Your task to perform on an android device: Open the calendar app, open the side menu, and click the "Day" option Image 0: 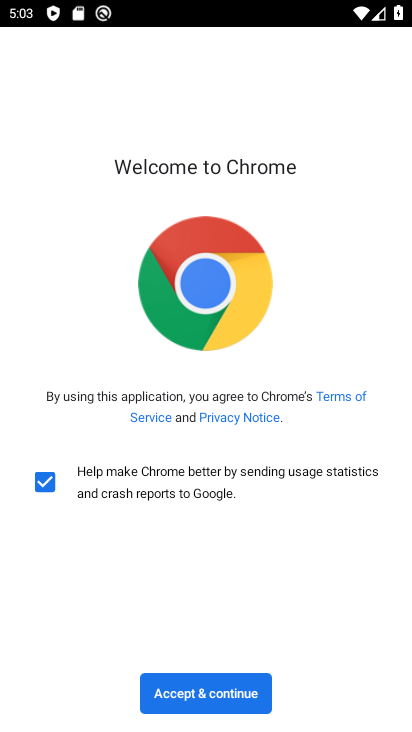
Step 0: press back button
Your task to perform on an android device: Open the calendar app, open the side menu, and click the "Day" option Image 1: 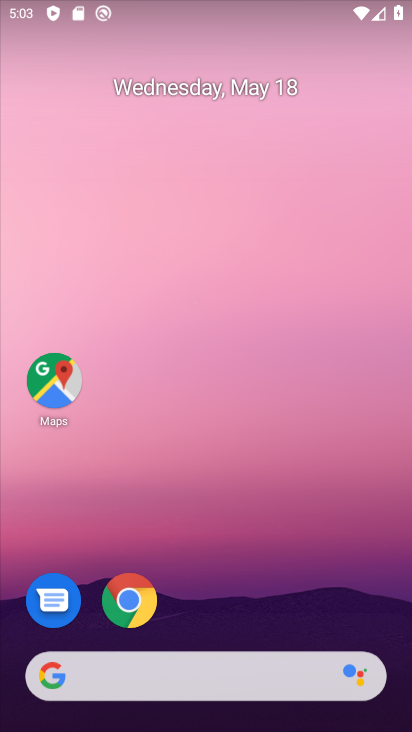
Step 1: drag from (223, 567) to (179, 113)
Your task to perform on an android device: Open the calendar app, open the side menu, and click the "Day" option Image 2: 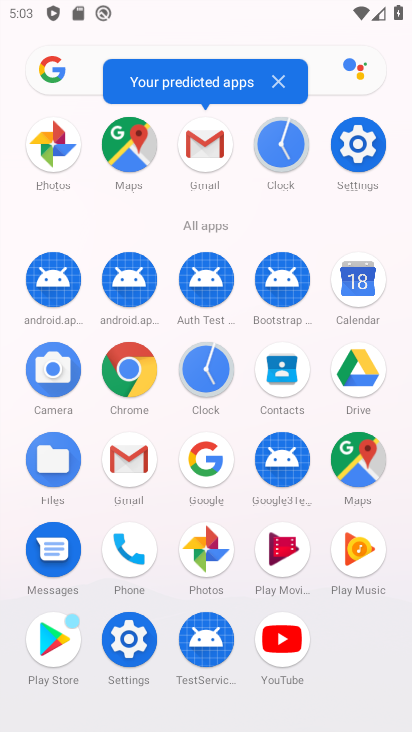
Step 2: click (356, 279)
Your task to perform on an android device: Open the calendar app, open the side menu, and click the "Day" option Image 3: 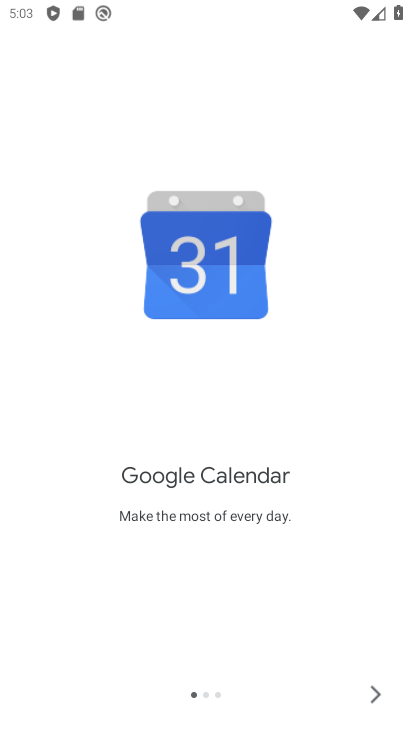
Step 3: click (374, 691)
Your task to perform on an android device: Open the calendar app, open the side menu, and click the "Day" option Image 4: 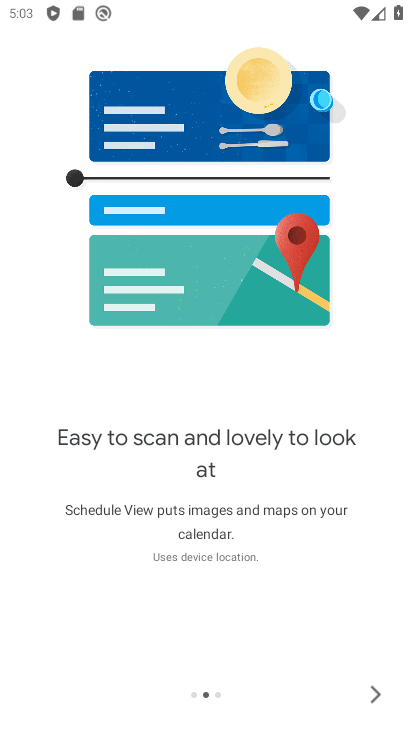
Step 4: click (374, 691)
Your task to perform on an android device: Open the calendar app, open the side menu, and click the "Day" option Image 5: 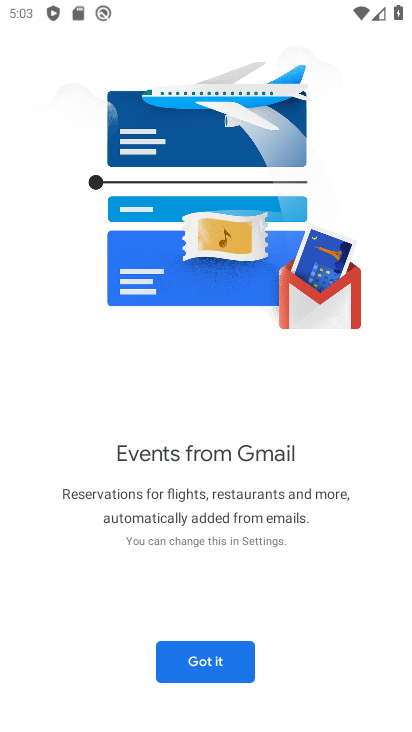
Step 5: click (188, 677)
Your task to perform on an android device: Open the calendar app, open the side menu, and click the "Day" option Image 6: 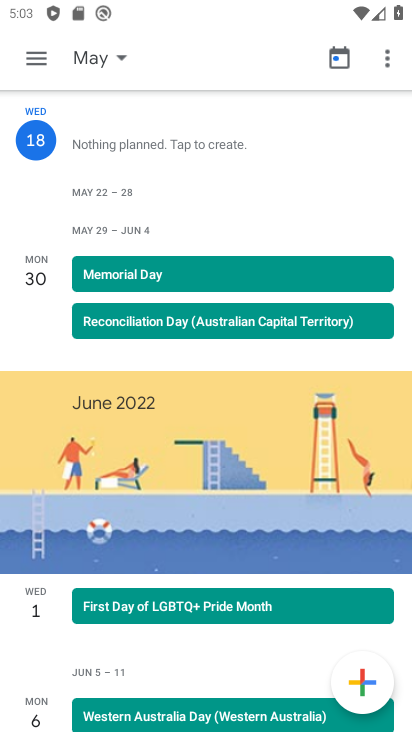
Step 6: click (36, 52)
Your task to perform on an android device: Open the calendar app, open the side menu, and click the "Day" option Image 7: 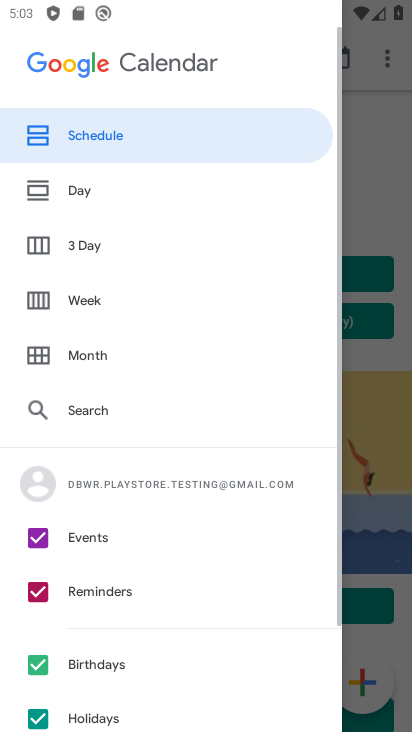
Step 7: click (90, 188)
Your task to perform on an android device: Open the calendar app, open the side menu, and click the "Day" option Image 8: 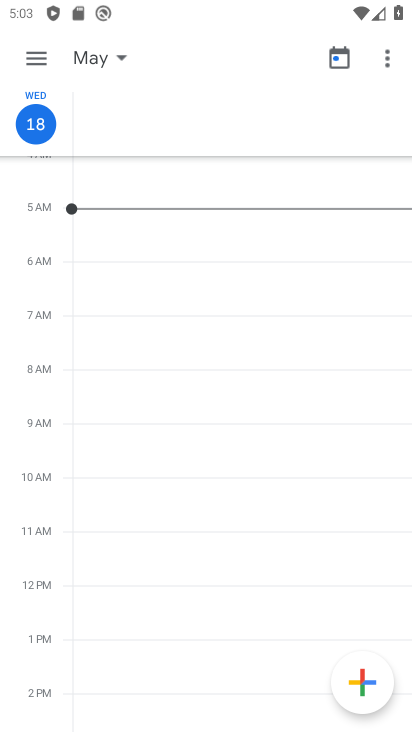
Step 8: task complete